Your task to perform on an android device: Open wifi settings Image 0: 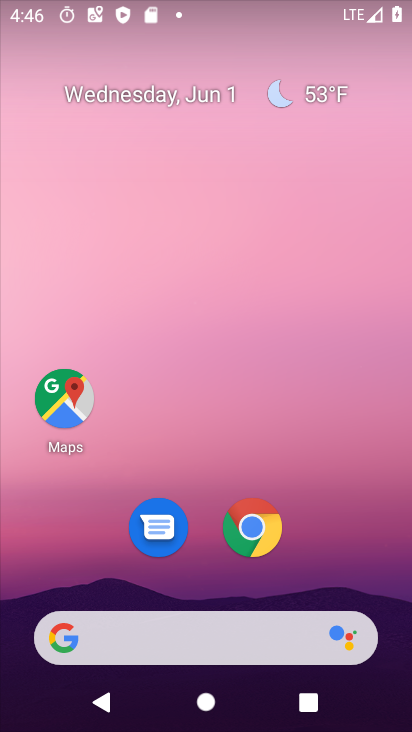
Step 0: drag from (335, 559) to (347, 481)
Your task to perform on an android device: Open wifi settings Image 1: 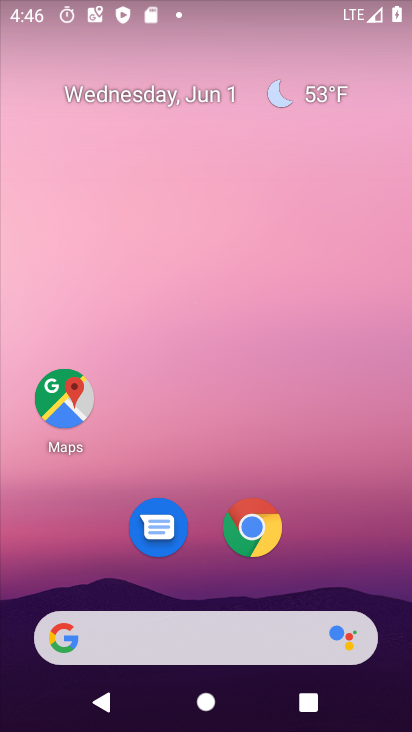
Step 1: drag from (161, 4) to (126, 474)
Your task to perform on an android device: Open wifi settings Image 2: 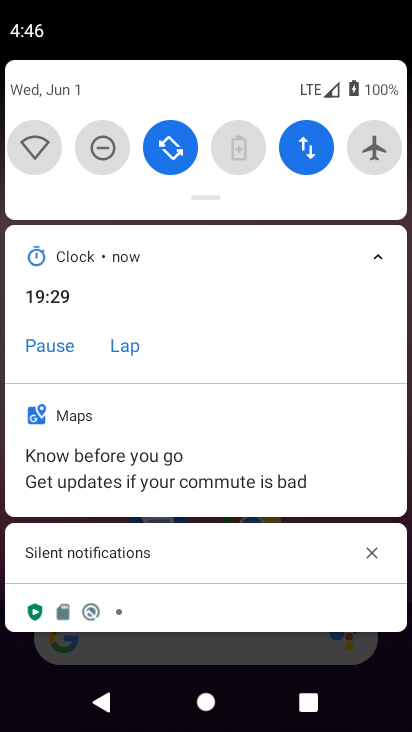
Step 2: click (30, 133)
Your task to perform on an android device: Open wifi settings Image 3: 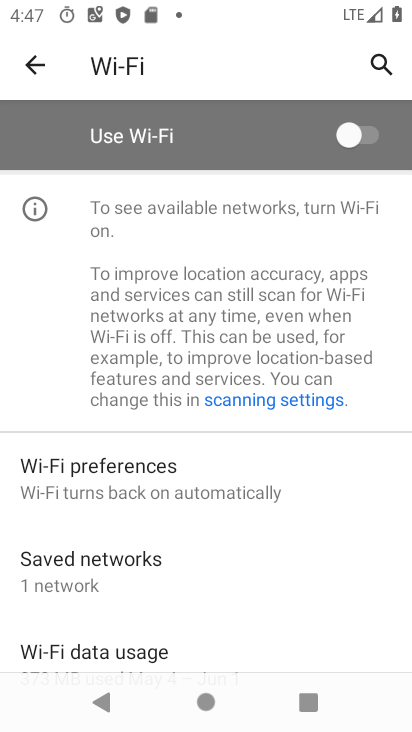
Step 3: task complete